Your task to perform on an android device: turn off notifications in google photos Image 0: 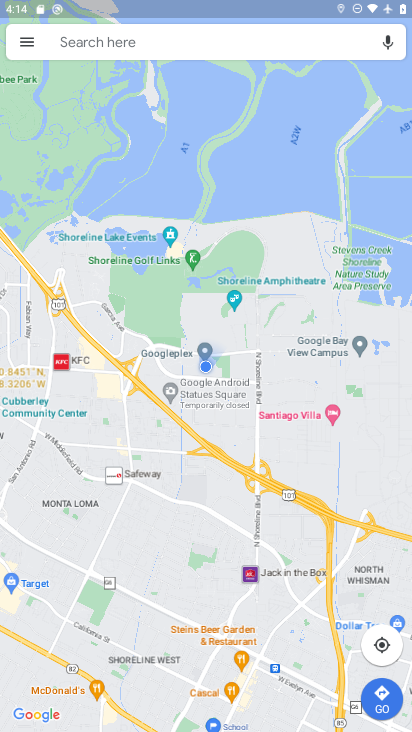
Step 0: press back button
Your task to perform on an android device: turn off notifications in google photos Image 1: 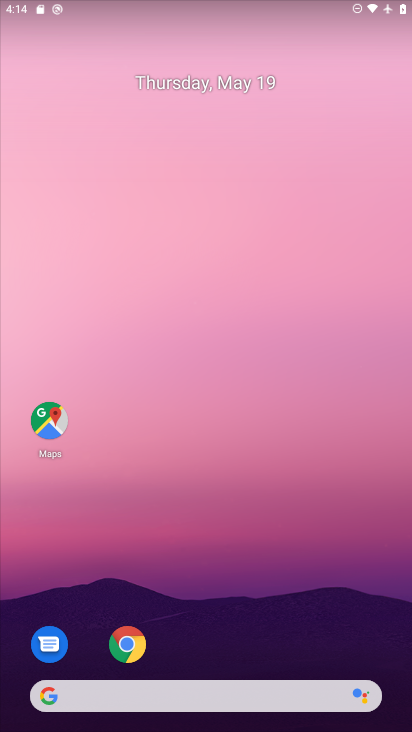
Step 1: drag from (303, 574) to (231, 9)
Your task to perform on an android device: turn off notifications in google photos Image 2: 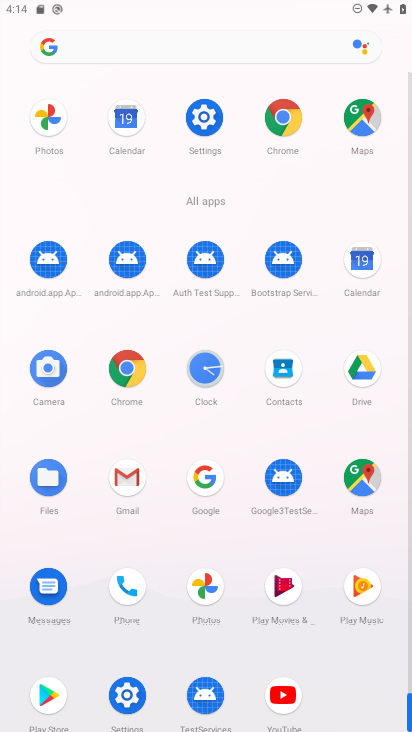
Step 2: click (208, 589)
Your task to perform on an android device: turn off notifications in google photos Image 3: 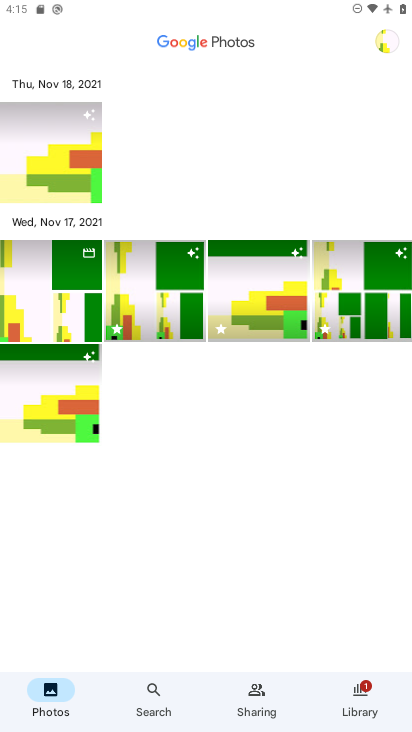
Step 3: click (387, 48)
Your task to perform on an android device: turn off notifications in google photos Image 4: 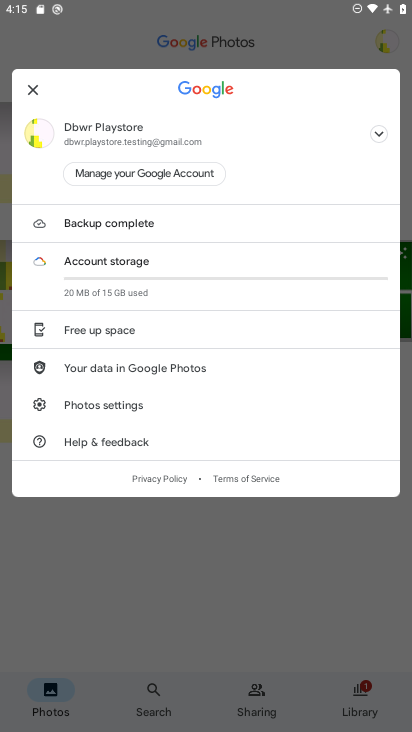
Step 4: click (98, 404)
Your task to perform on an android device: turn off notifications in google photos Image 5: 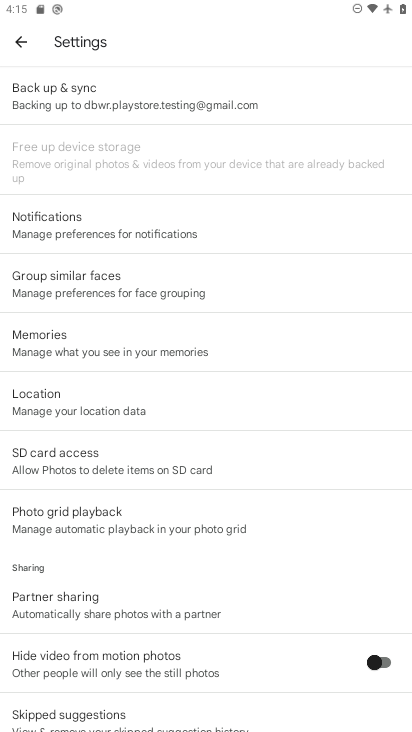
Step 5: click (109, 232)
Your task to perform on an android device: turn off notifications in google photos Image 6: 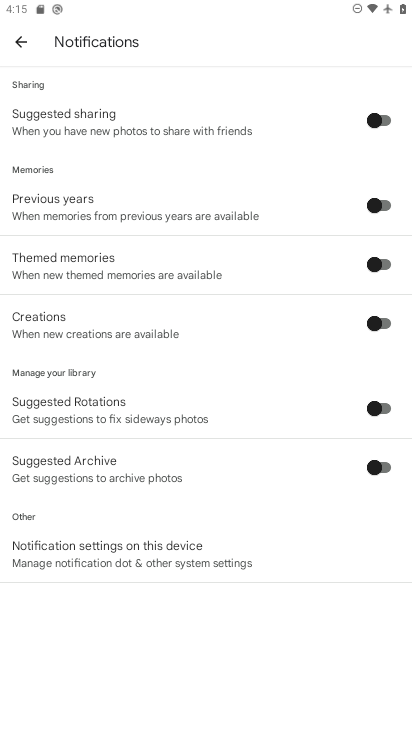
Step 6: click (140, 547)
Your task to perform on an android device: turn off notifications in google photos Image 7: 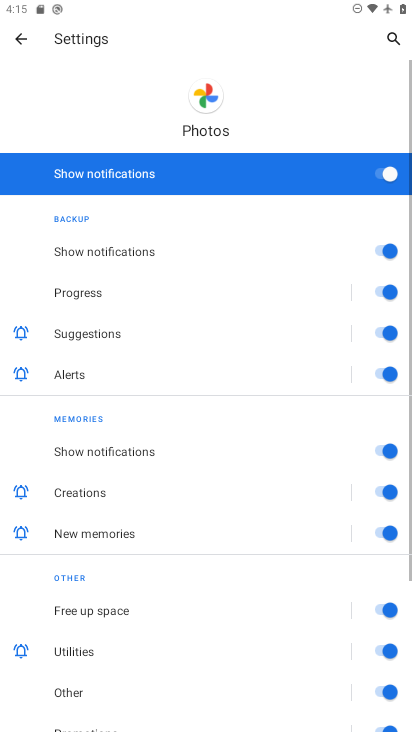
Step 7: click (372, 165)
Your task to perform on an android device: turn off notifications in google photos Image 8: 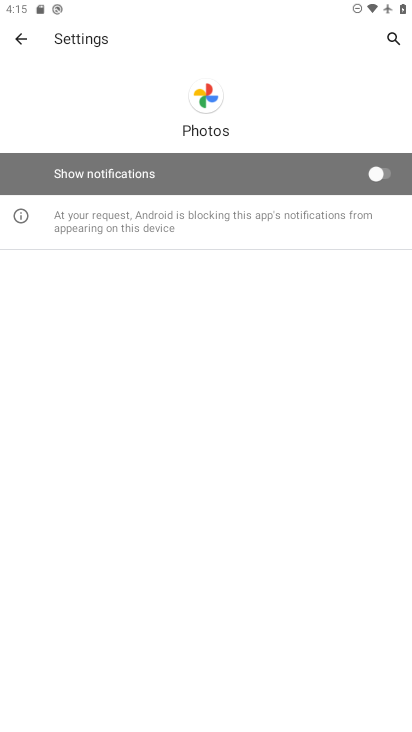
Step 8: task complete